Your task to perform on an android device: turn off sleep mode Image 0: 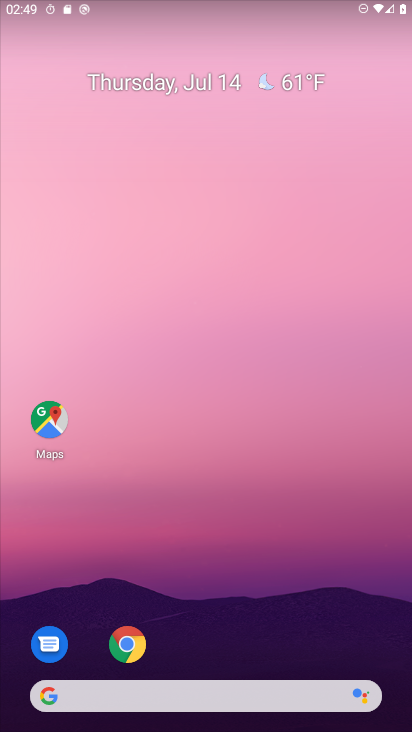
Step 0: drag from (339, 569) to (339, 61)
Your task to perform on an android device: turn off sleep mode Image 1: 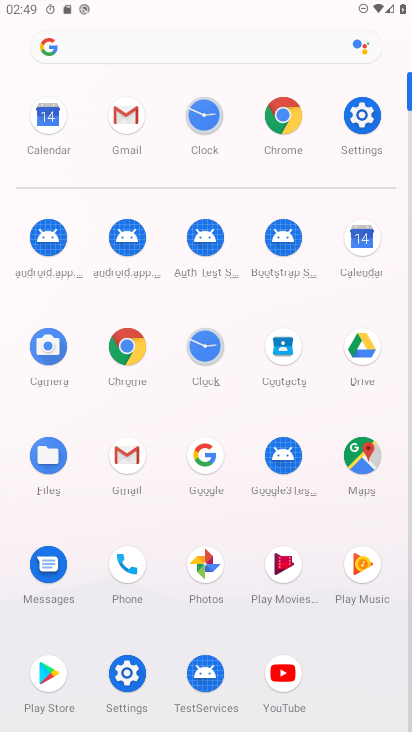
Step 1: click (357, 113)
Your task to perform on an android device: turn off sleep mode Image 2: 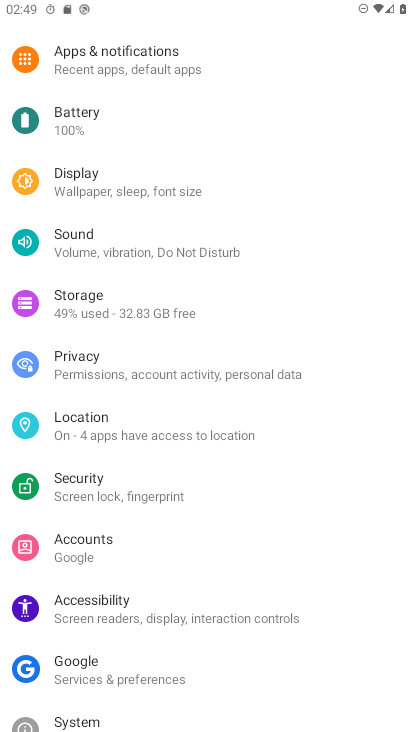
Step 2: click (106, 179)
Your task to perform on an android device: turn off sleep mode Image 3: 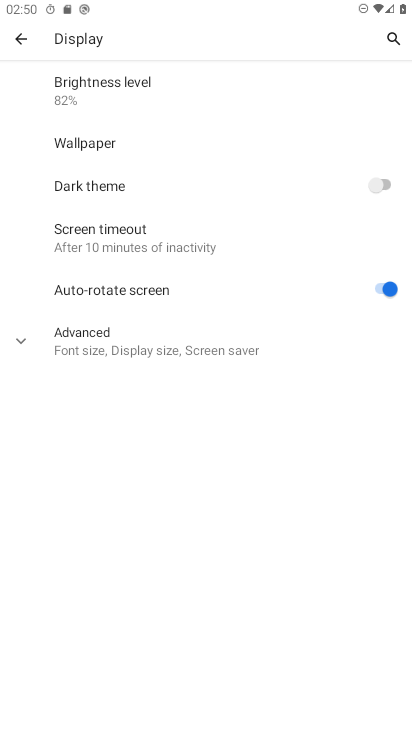
Step 3: click (92, 220)
Your task to perform on an android device: turn off sleep mode Image 4: 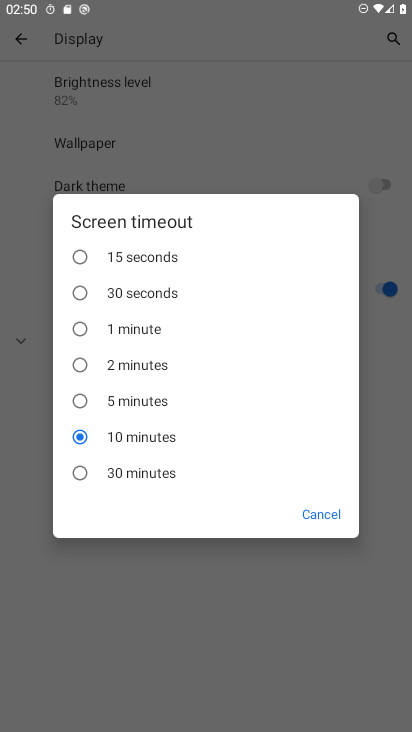
Step 4: task complete